Your task to perform on an android device: see tabs open on other devices in the chrome app Image 0: 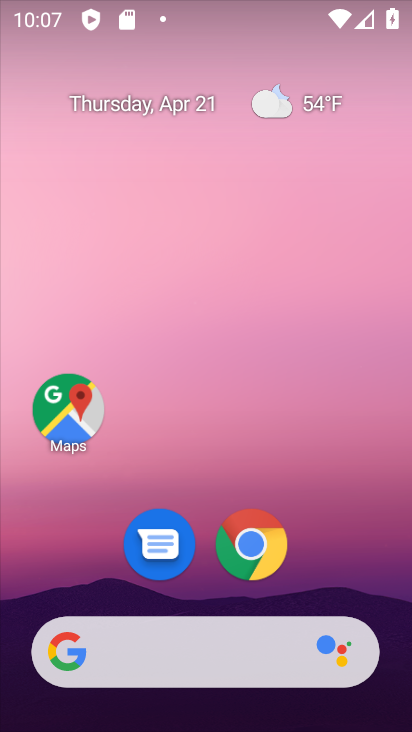
Step 0: click (255, 546)
Your task to perform on an android device: see tabs open on other devices in the chrome app Image 1: 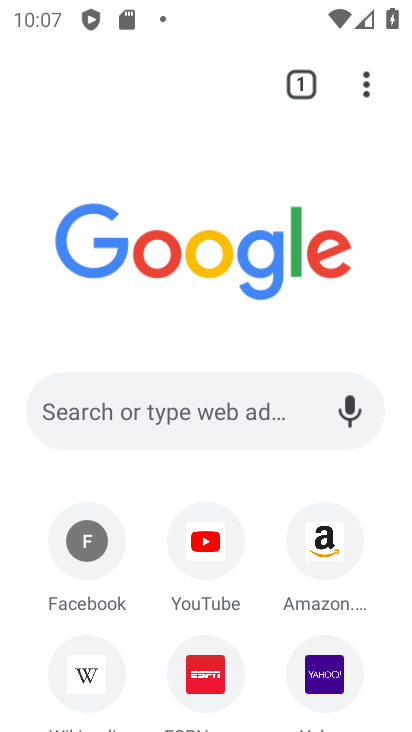
Step 1: click (304, 90)
Your task to perform on an android device: see tabs open on other devices in the chrome app Image 2: 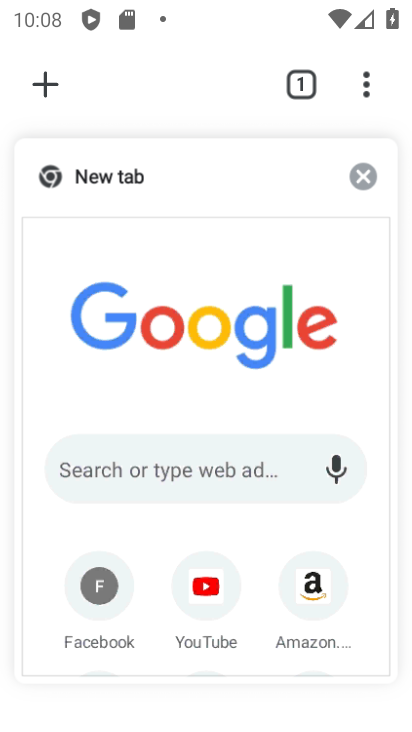
Step 2: task complete